Your task to perform on an android device: Check the weather Image 0: 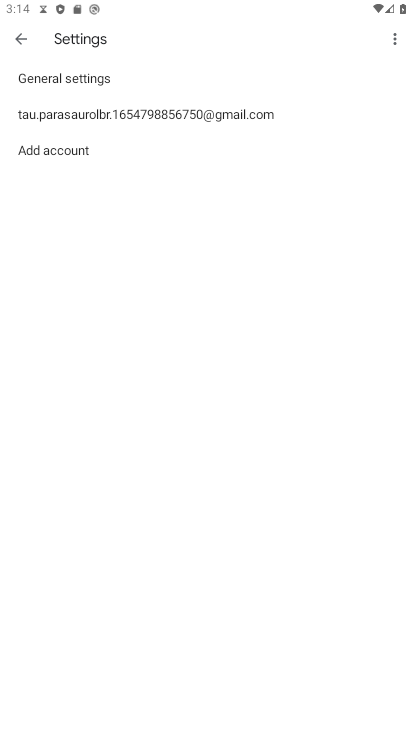
Step 0: press home button
Your task to perform on an android device: Check the weather Image 1: 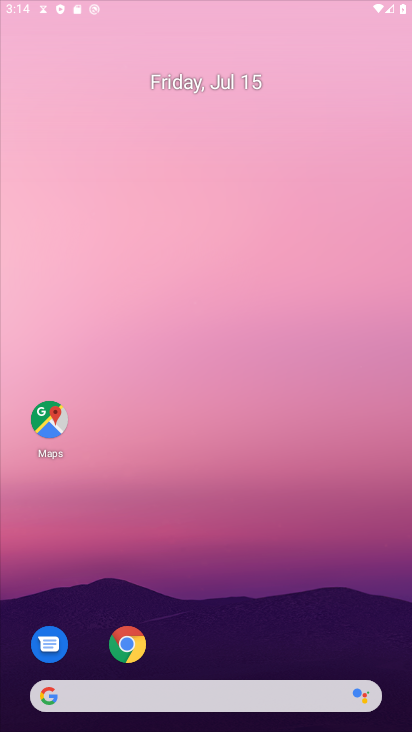
Step 1: drag from (266, 688) to (269, 51)
Your task to perform on an android device: Check the weather Image 2: 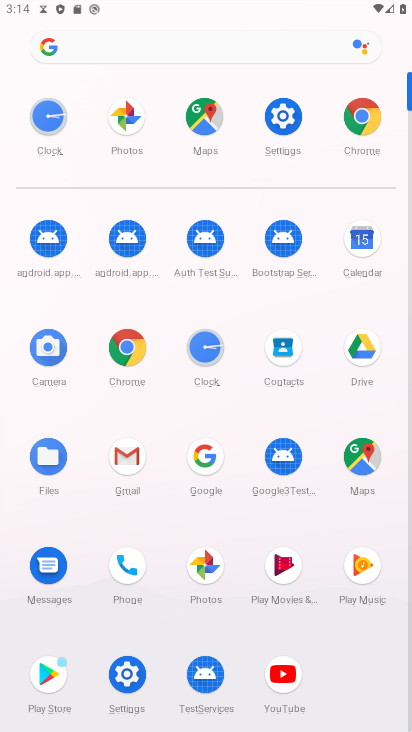
Step 2: click (119, 342)
Your task to perform on an android device: Check the weather Image 3: 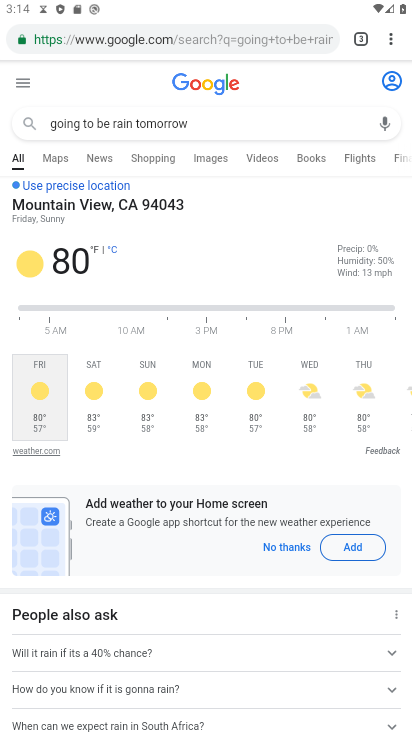
Step 3: task complete